Your task to perform on an android device: Go to calendar. Show me events next week Image 0: 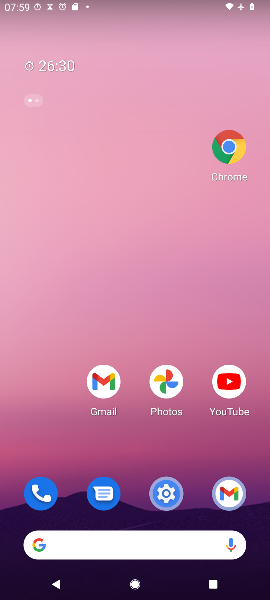
Step 0: press home button
Your task to perform on an android device: Go to calendar. Show me events next week Image 1: 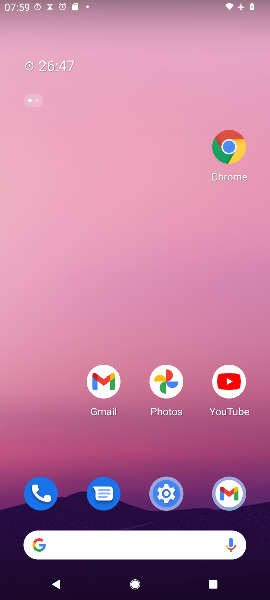
Step 1: drag from (136, 515) to (154, 135)
Your task to perform on an android device: Go to calendar. Show me events next week Image 2: 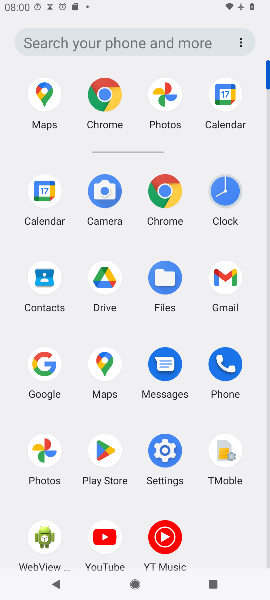
Step 2: click (42, 194)
Your task to perform on an android device: Go to calendar. Show me events next week Image 3: 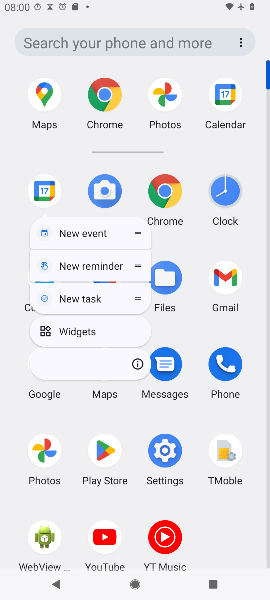
Step 3: click (42, 194)
Your task to perform on an android device: Go to calendar. Show me events next week Image 4: 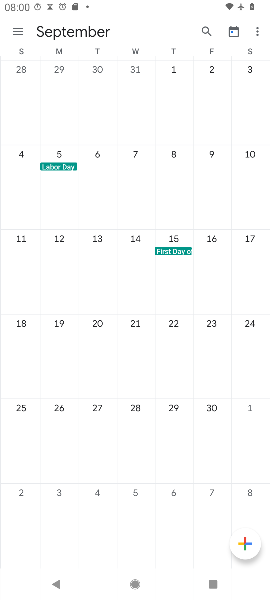
Step 4: drag from (68, 184) to (250, 190)
Your task to perform on an android device: Go to calendar. Show me events next week Image 5: 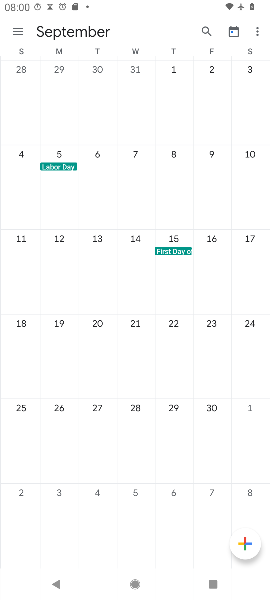
Step 5: drag from (42, 221) to (268, 251)
Your task to perform on an android device: Go to calendar. Show me events next week Image 6: 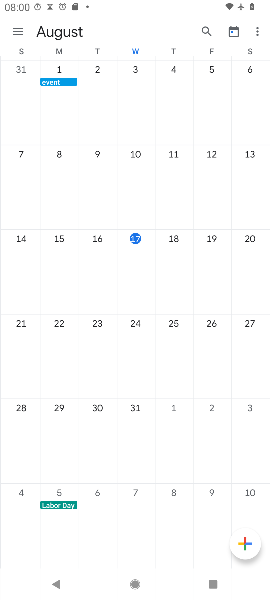
Step 6: click (15, 32)
Your task to perform on an android device: Go to calendar. Show me events next week Image 7: 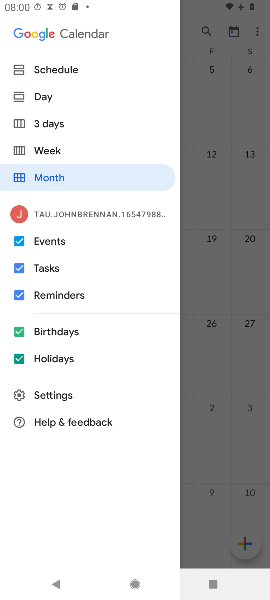
Step 7: click (52, 149)
Your task to perform on an android device: Go to calendar. Show me events next week Image 8: 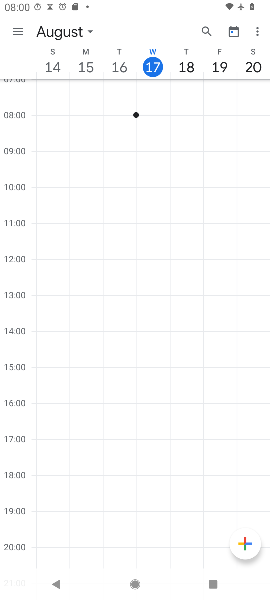
Step 8: task complete